Your task to perform on an android device: Go to sound settings Image 0: 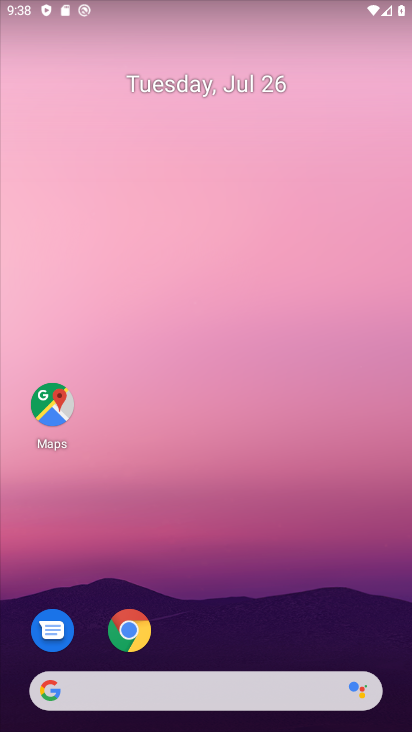
Step 0: drag from (377, 623) to (320, 182)
Your task to perform on an android device: Go to sound settings Image 1: 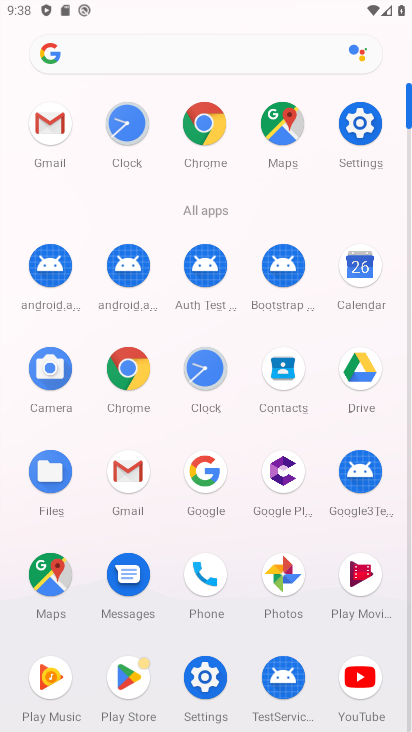
Step 1: click (205, 674)
Your task to perform on an android device: Go to sound settings Image 2: 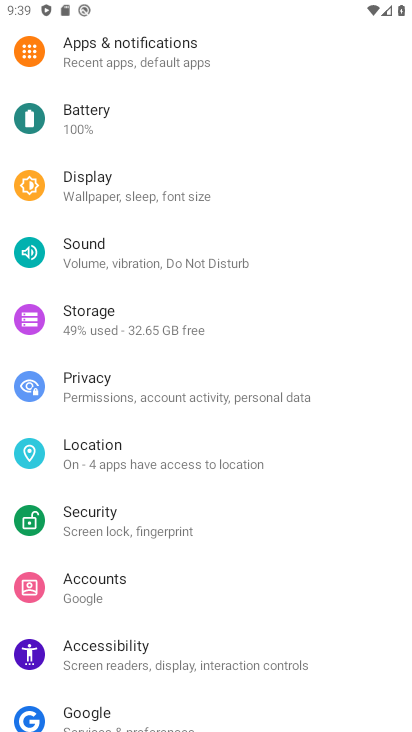
Step 2: click (106, 258)
Your task to perform on an android device: Go to sound settings Image 3: 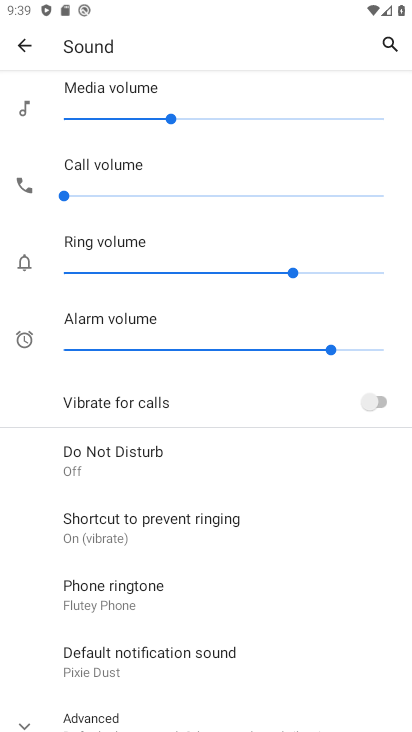
Step 3: task complete